Your task to perform on an android device: Go to Yahoo.com Image 0: 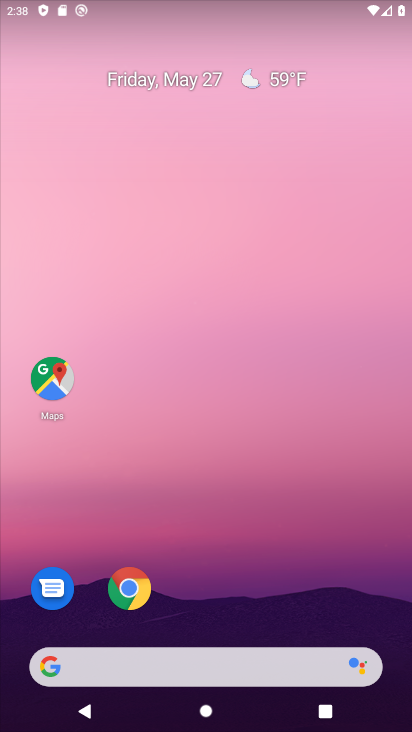
Step 0: drag from (260, 650) to (194, 214)
Your task to perform on an android device: Go to Yahoo.com Image 1: 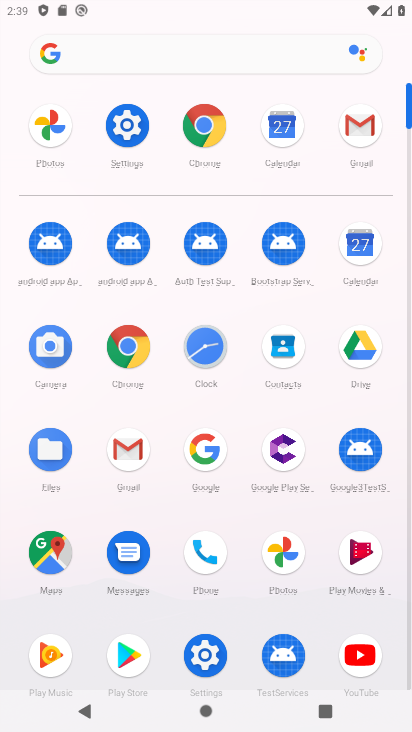
Step 1: click (198, 128)
Your task to perform on an android device: Go to Yahoo.com Image 2: 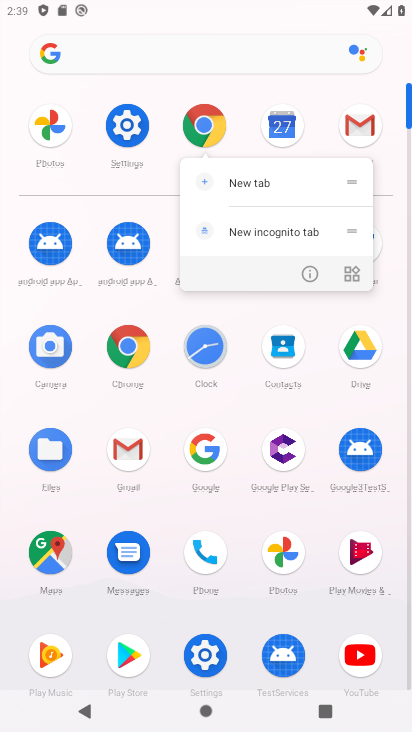
Step 2: click (234, 182)
Your task to perform on an android device: Go to Yahoo.com Image 3: 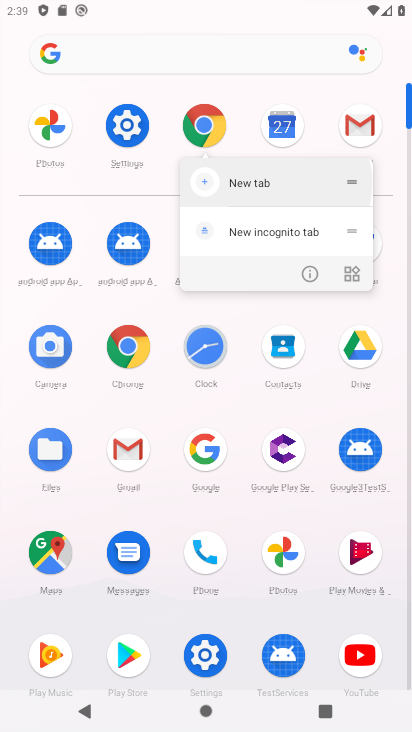
Step 3: click (234, 182)
Your task to perform on an android device: Go to Yahoo.com Image 4: 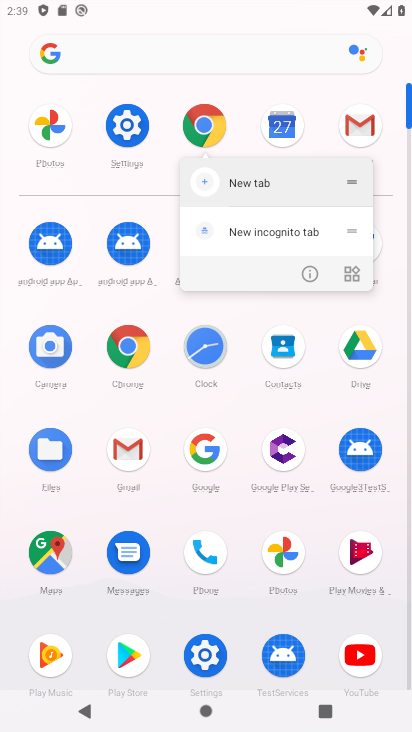
Step 4: click (234, 182)
Your task to perform on an android device: Go to Yahoo.com Image 5: 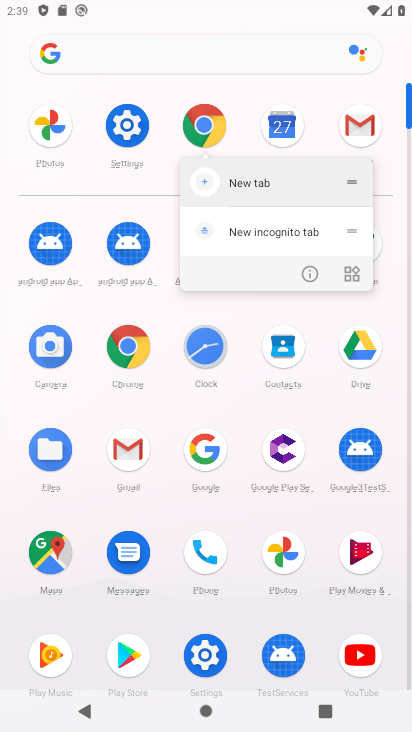
Step 5: click (234, 182)
Your task to perform on an android device: Go to Yahoo.com Image 6: 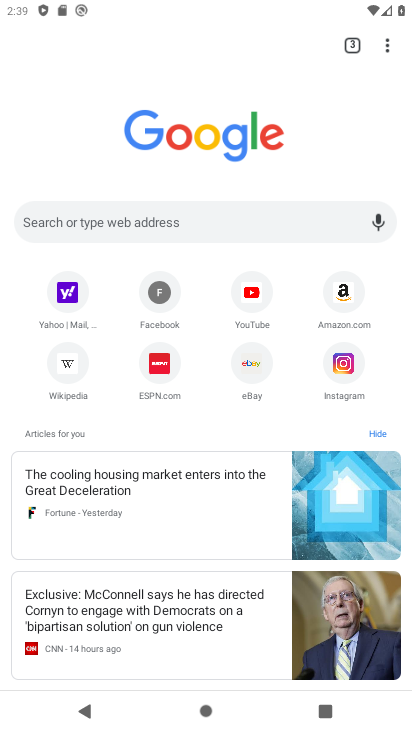
Step 6: click (194, 124)
Your task to perform on an android device: Go to Yahoo.com Image 7: 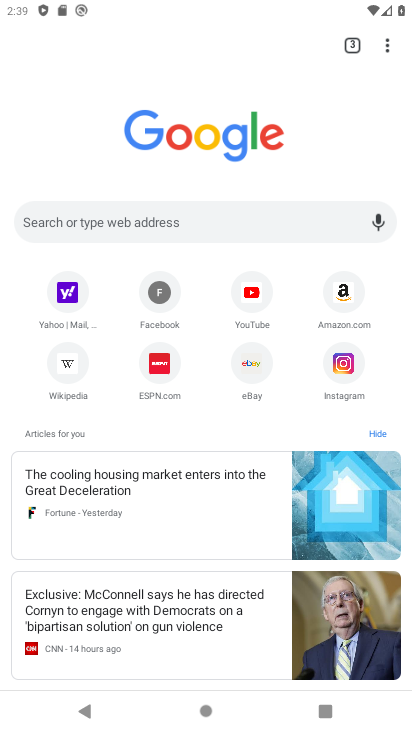
Step 7: click (199, 127)
Your task to perform on an android device: Go to Yahoo.com Image 8: 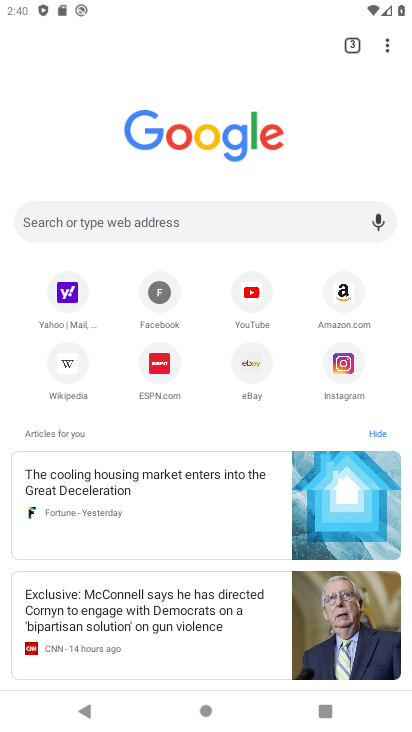
Step 8: click (70, 295)
Your task to perform on an android device: Go to Yahoo.com Image 9: 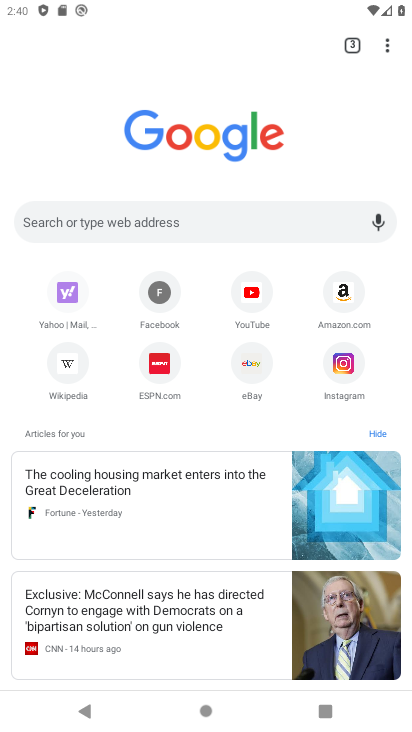
Step 9: click (70, 295)
Your task to perform on an android device: Go to Yahoo.com Image 10: 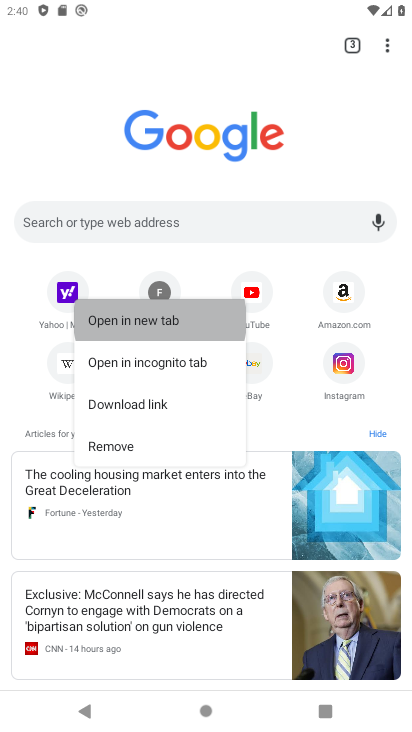
Step 10: click (79, 295)
Your task to perform on an android device: Go to Yahoo.com Image 11: 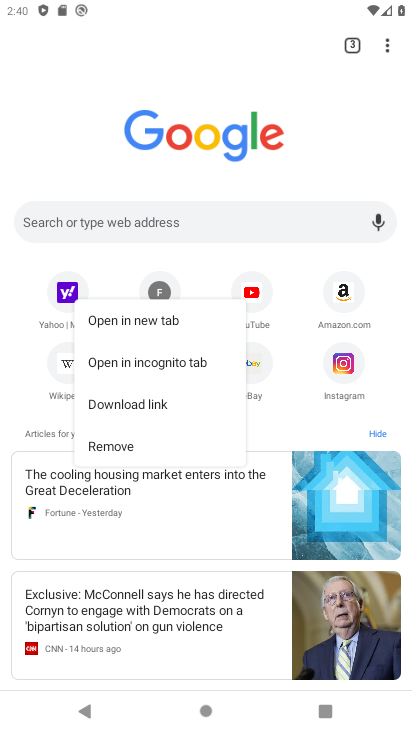
Step 11: click (81, 294)
Your task to perform on an android device: Go to Yahoo.com Image 12: 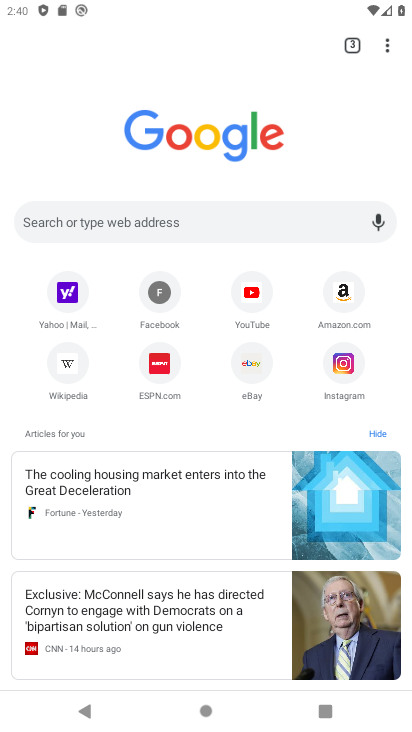
Step 12: click (81, 294)
Your task to perform on an android device: Go to Yahoo.com Image 13: 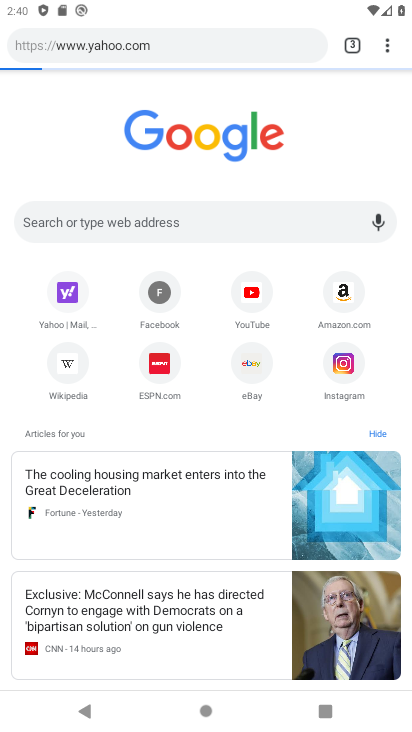
Step 13: click (81, 294)
Your task to perform on an android device: Go to Yahoo.com Image 14: 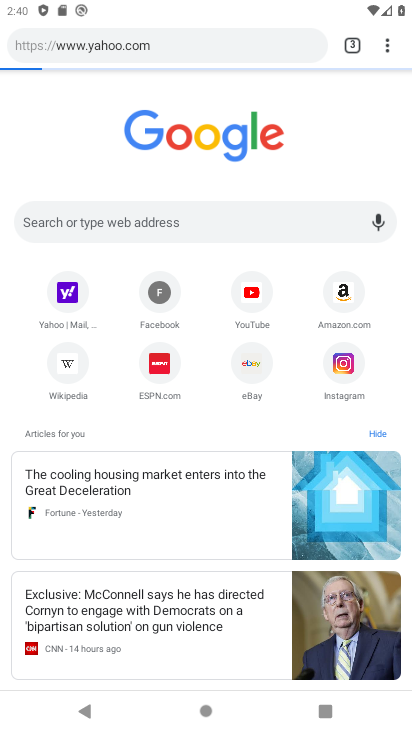
Step 14: click (81, 294)
Your task to perform on an android device: Go to Yahoo.com Image 15: 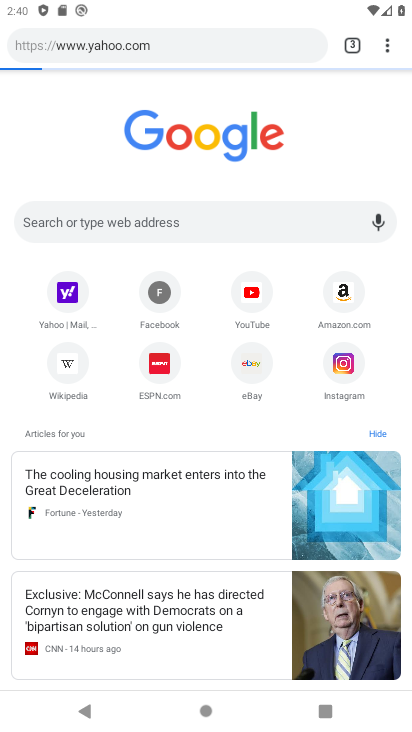
Step 15: click (71, 300)
Your task to perform on an android device: Go to Yahoo.com Image 16: 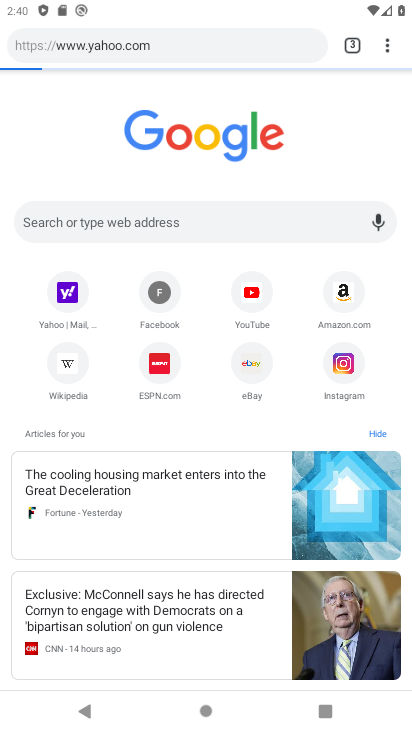
Step 16: click (71, 300)
Your task to perform on an android device: Go to Yahoo.com Image 17: 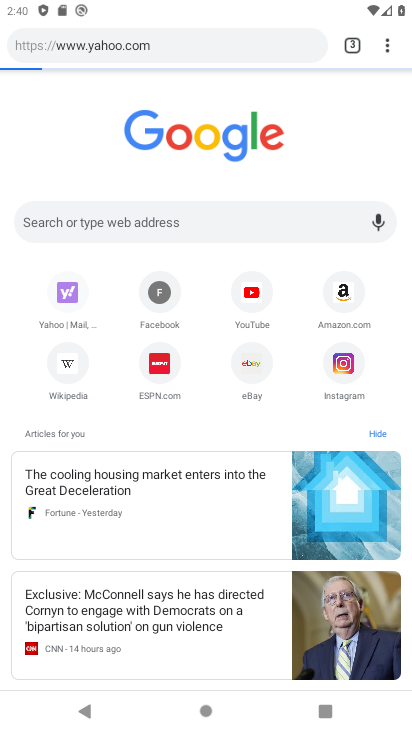
Step 17: click (71, 300)
Your task to perform on an android device: Go to Yahoo.com Image 18: 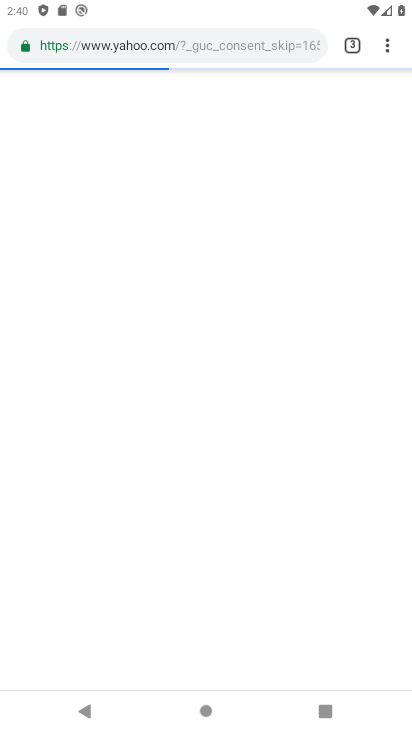
Step 18: click (70, 293)
Your task to perform on an android device: Go to Yahoo.com Image 19: 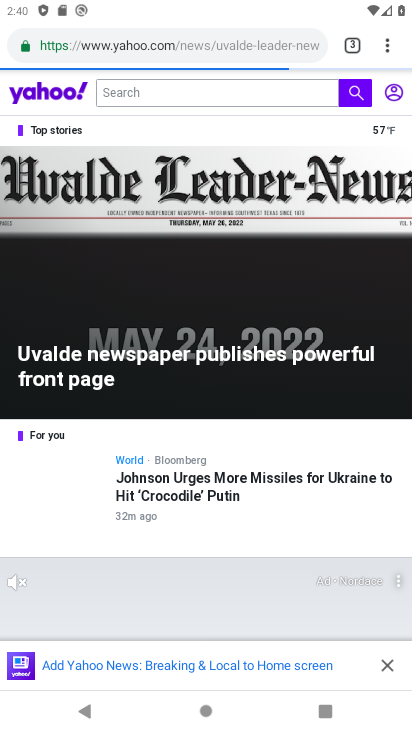
Step 19: task complete